Your task to perform on an android device: Go to Amazon Image 0: 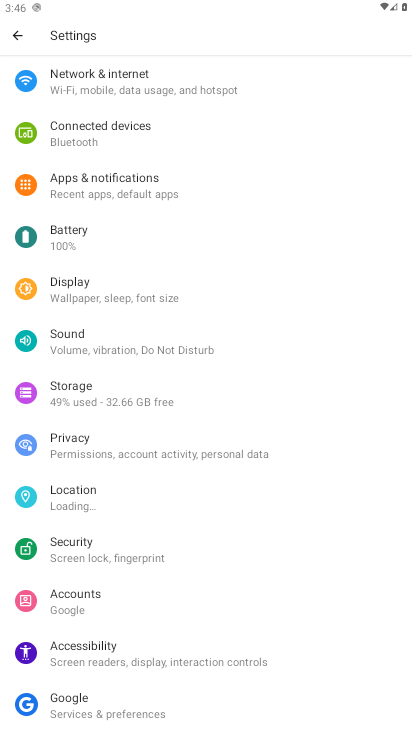
Step 0: press home button
Your task to perform on an android device: Go to Amazon Image 1: 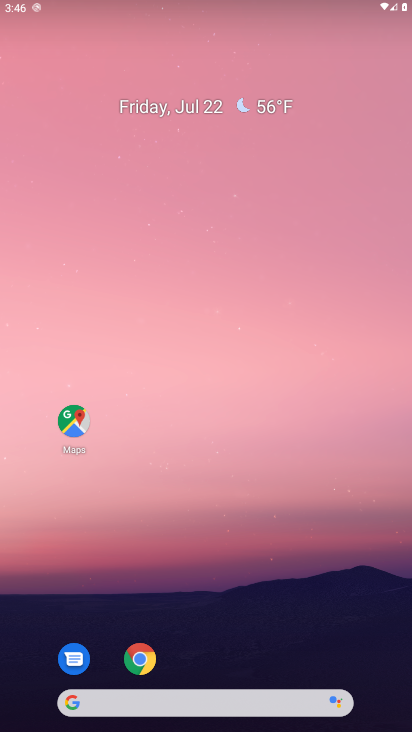
Step 1: drag from (162, 690) to (174, 281)
Your task to perform on an android device: Go to Amazon Image 2: 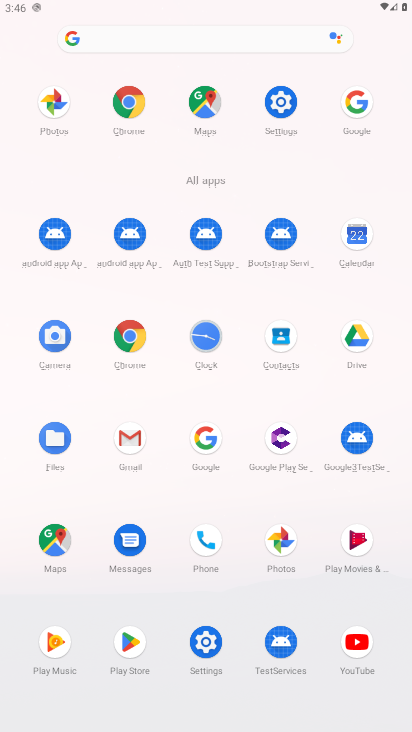
Step 2: click (203, 446)
Your task to perform on an android device: Go to Amazon Image 3: 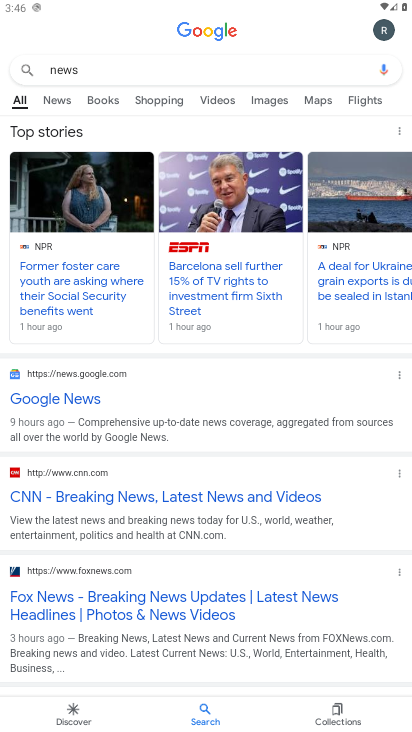
Step 3: click (91, 69)
Your task to perform on an android device: Go to Amazon Image 4: 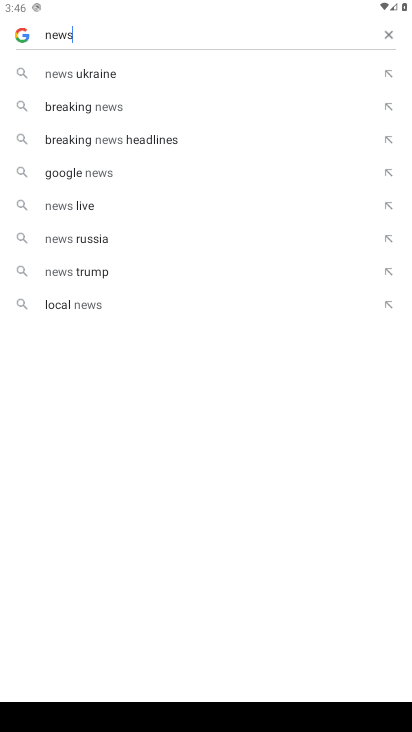
Step 4: click (390, 32)
Your task to perform on an android device: Go to Amazon Image 5: 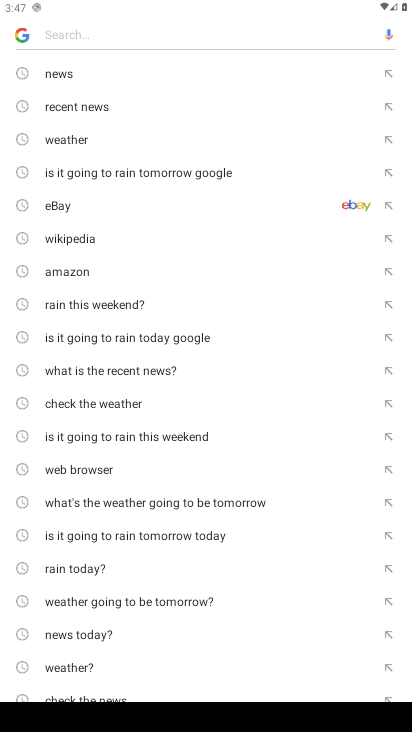
Step 5: click (78, 270)
Your task to perform on an android device: Go to Amazon Image 6: 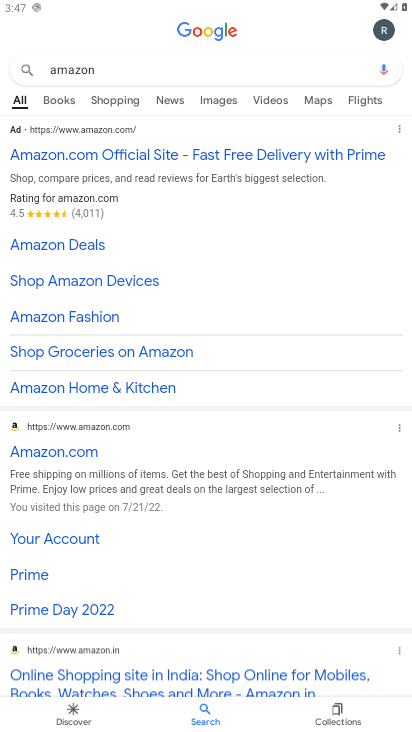
Step 6: click (136, 153)
Your task to perform on an android device: Go to Amazon Image 7: 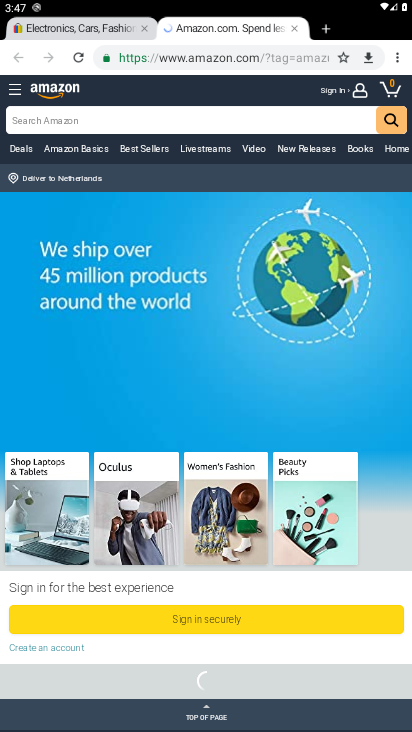
Step 7: task complete